Your task to perform on an android device: Go to Android settings Image 0: 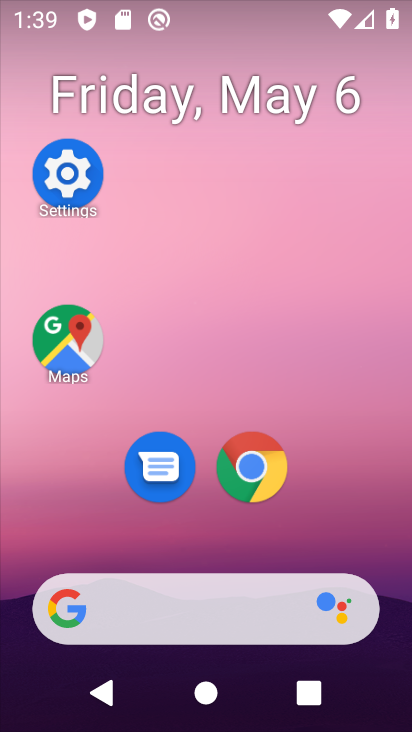
Step 0: click (86, 177)
Your task to perform on an android device: Go to Android settings Image 1: 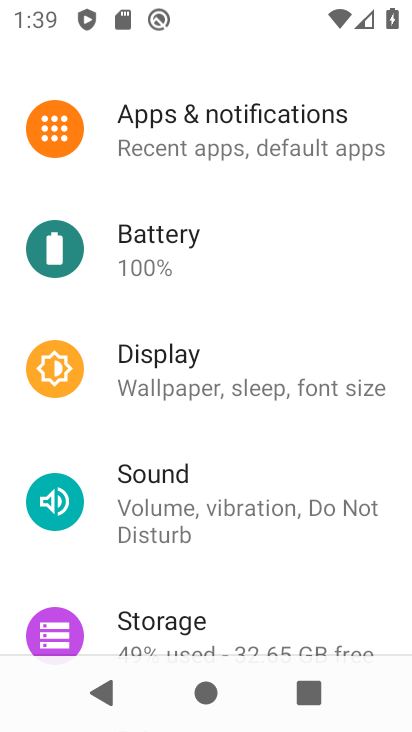
Step 1: task complete